Your task to perform on an android device: Show me popular games on the Play Store Image 0: 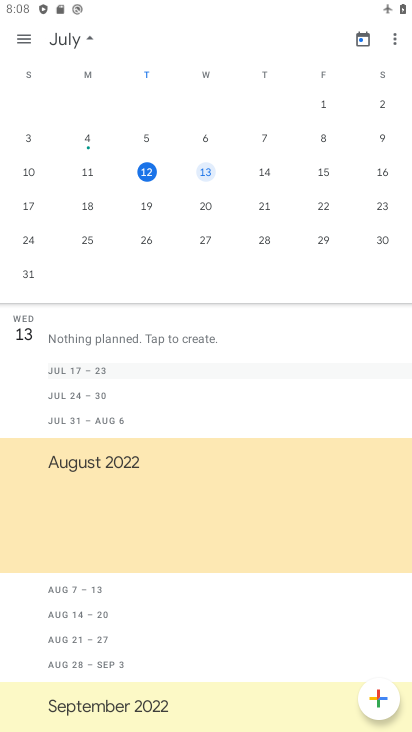
Step 0: press home button
Your task to perform on an android device: Show me popular games on the Play Store Image 1: 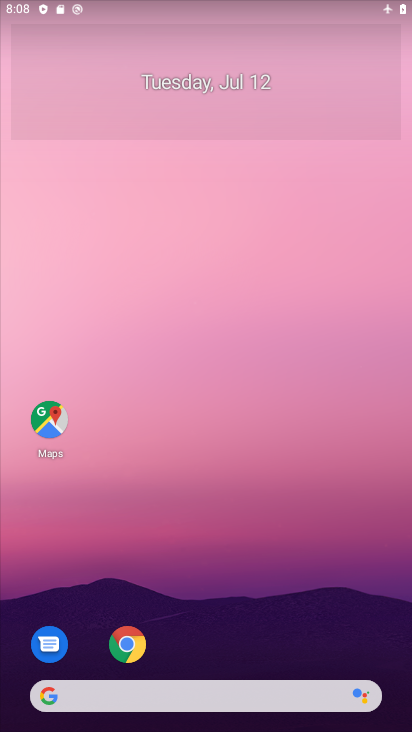
Step 1: drag from (219, 615) to (223, 174)
Your task to perform on an android device: Show me popular games on the Play Store Image 2: 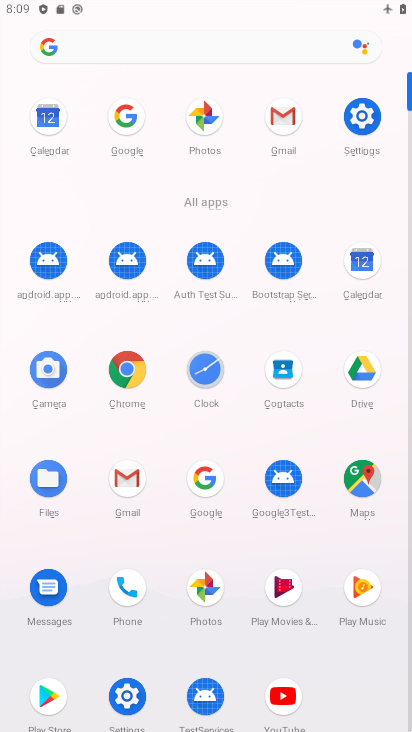
Step 2: click (39, 702)
Your task to perform on an android device: Show me popular games on the Play Store Image 3: 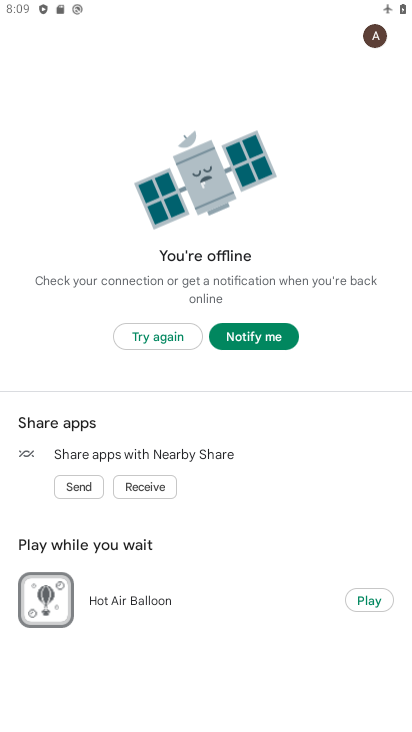
Step 3: task complete